Your task to perform on an android device: toggle javascript in the chrome app Image 0: 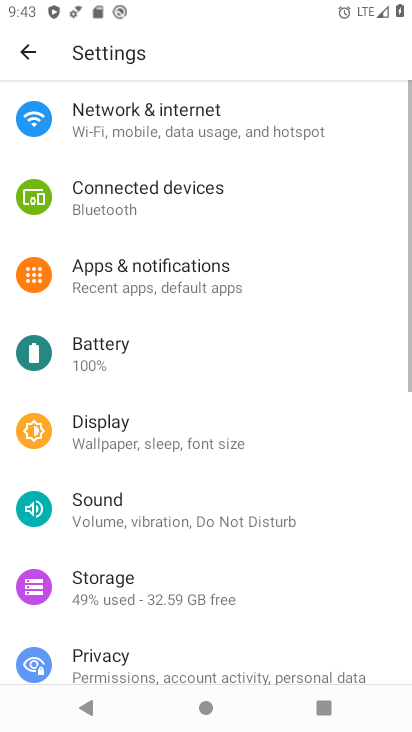
Step 0: press home button
Your task to perform on an android device: toggle javascript in the chrome app Image 1: 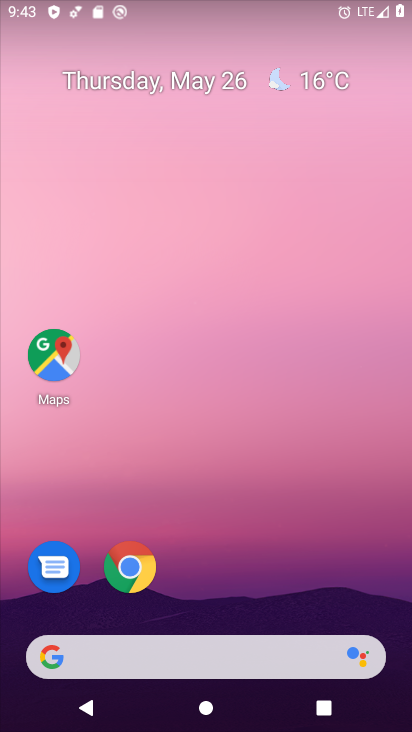
Step 1: click (119, 562)
Your task to perform on an android device: toggle javascript in the chrome app Image 2: 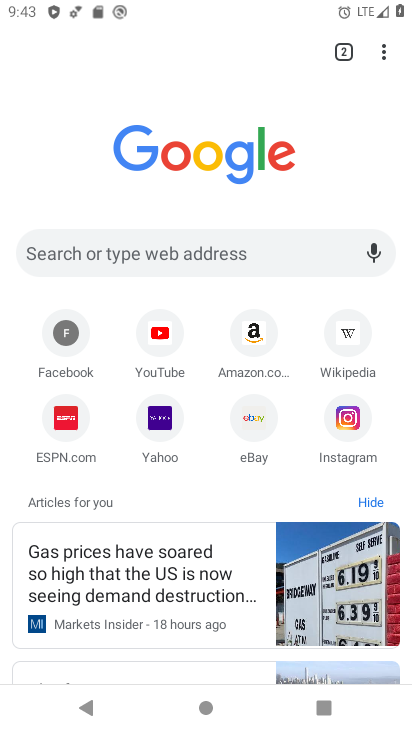
Step 2: click (384, 51)
Your task to perform on an android device: toggle javascript in the chrome app Image 3: 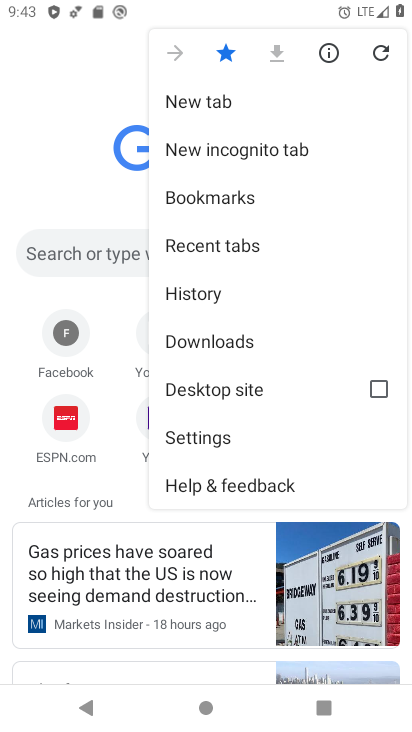
Step 3: click (200, 432)
Your task to perform on an android device: toggle javascript in the chrome app Image 4: 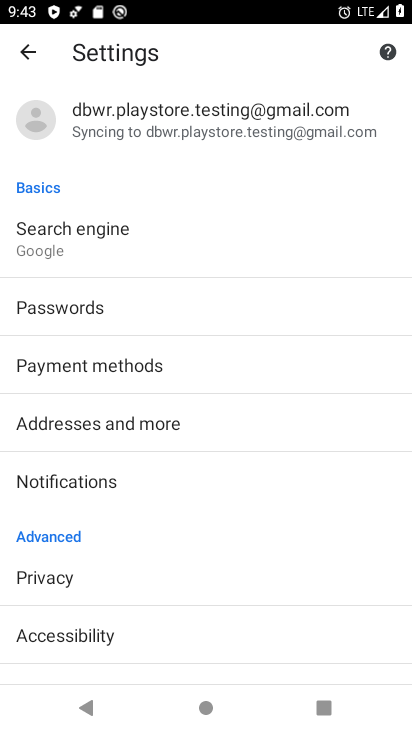
Step 4: drag from (224, 547) to (226, 337)
Your task to perform on an android device: toggle javascript in the chrome app Image 5: 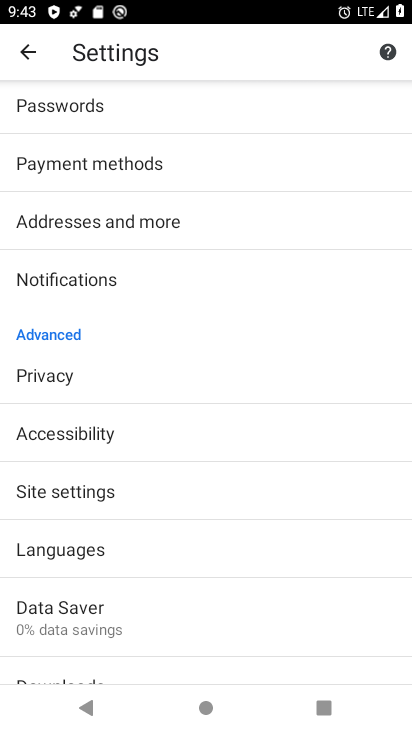
Step 5: click (66, 500)
Your task to perform on an android device: toggle javascript in the chrome app Image 6: 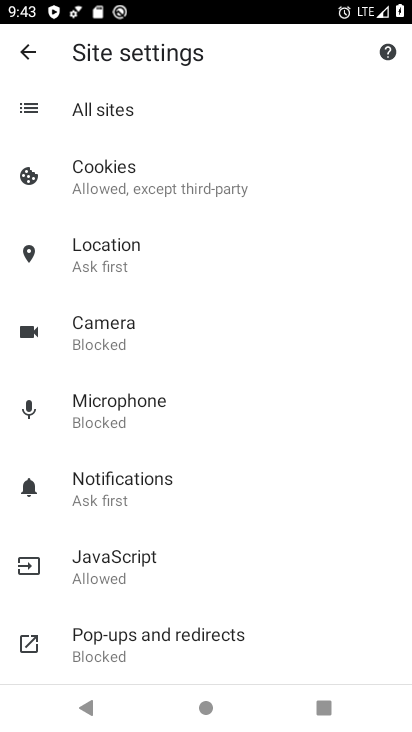
Step 6: click (81, 563)
Your task to perform on an android device: toggle javascript in the chrome app Image 7: 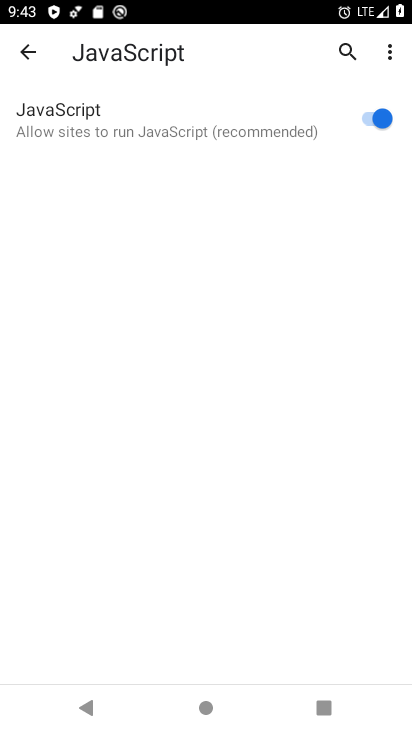
Step 7: click (366, 122)
Your task to perform on an android device: toggle javascript in the chrome app Image 8: 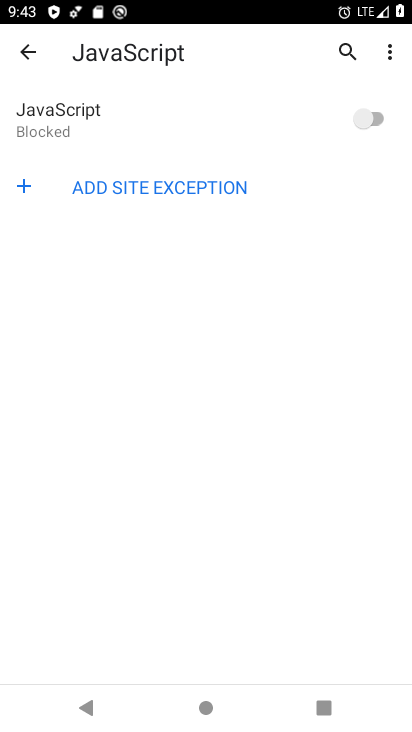
Step 8: task complete